Your task to perform on an android device: See recent photos Image 0: 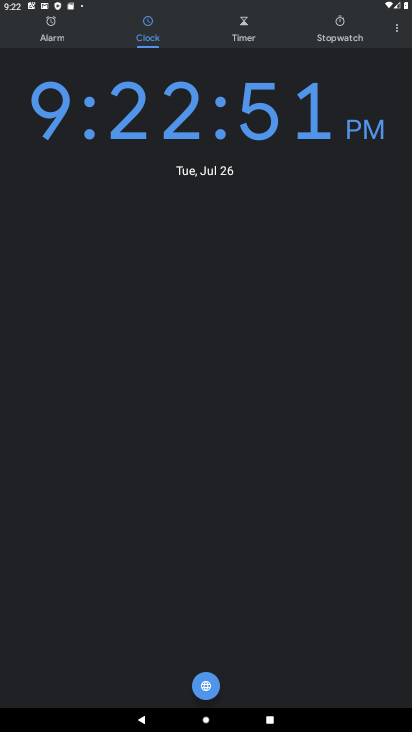
Step 0: press home button
Your task to perform on an android device: See recent photos Image 1: 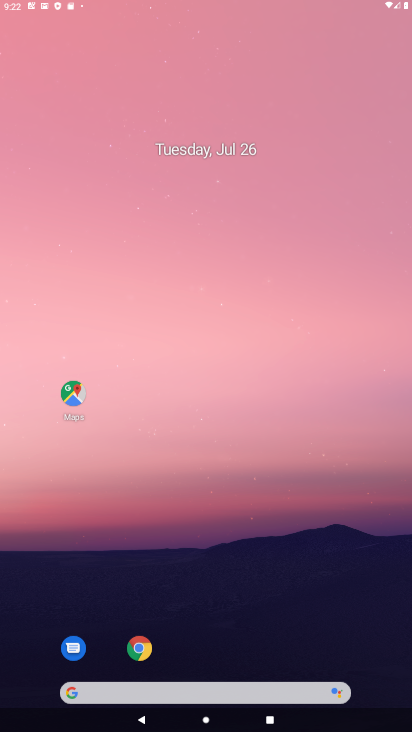
Step 1: drag from (232, 577) to (295, 43)
Your task to perform on an android device: See recent photos Image 2: 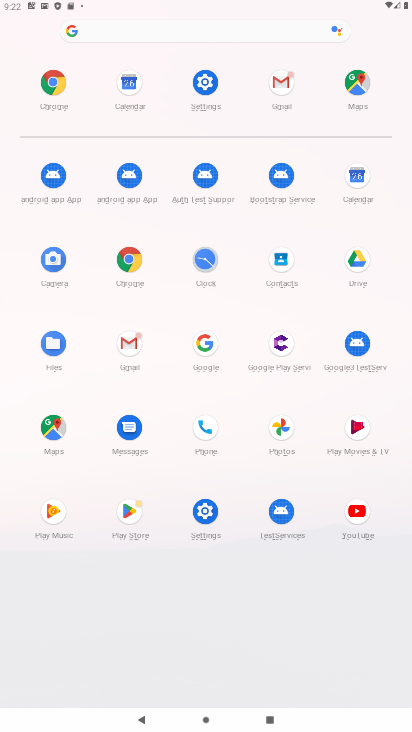
Step 2: click (282, 422)
Your task to perform on an android device: See recent photos Image 3: 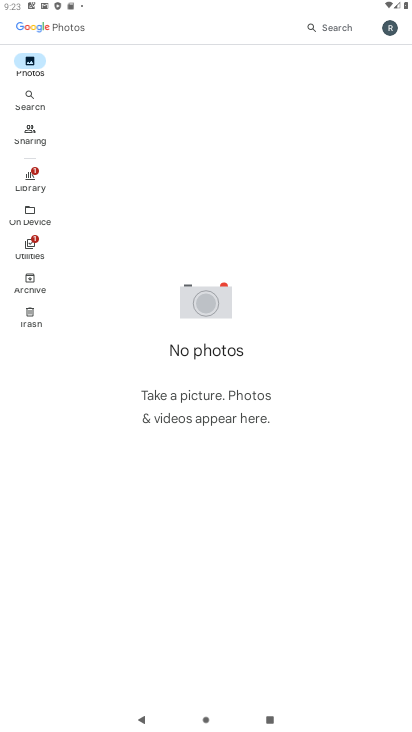
Step 3: task complete